Your task to perform on an android device: Open the Play Movies app and select the watchlist tab. Image 0: 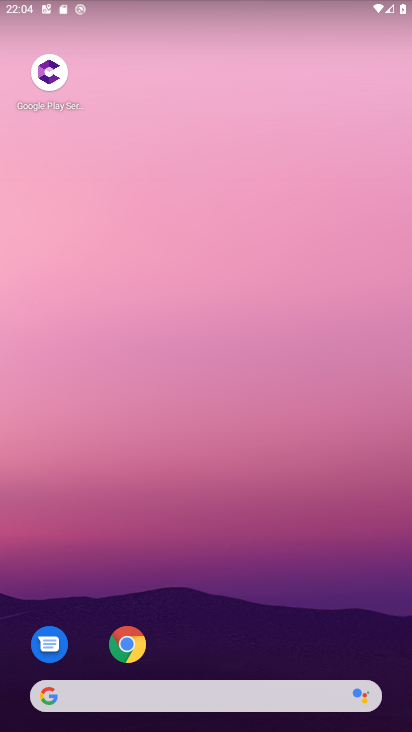
Step 0: drag from (214, 655) to (266, 34)
Your task to perform on an android device: Open the Play Movies app and select the watchlist tab. Image 1: 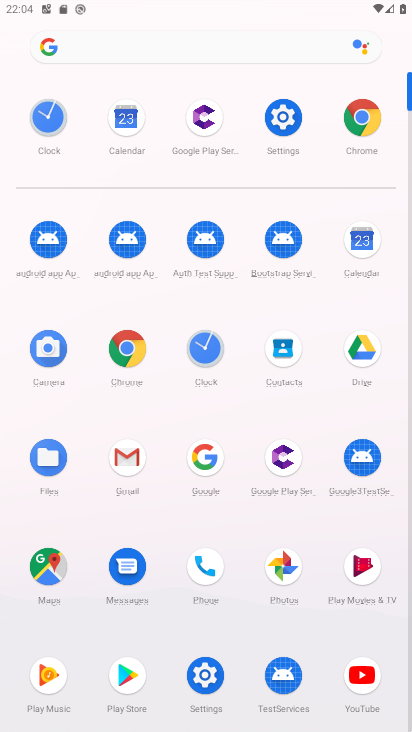
Step 1: click (357, 563)
Your task to perform on an android device: Open the Play Movies app and select the watchlist tab. Image 2: 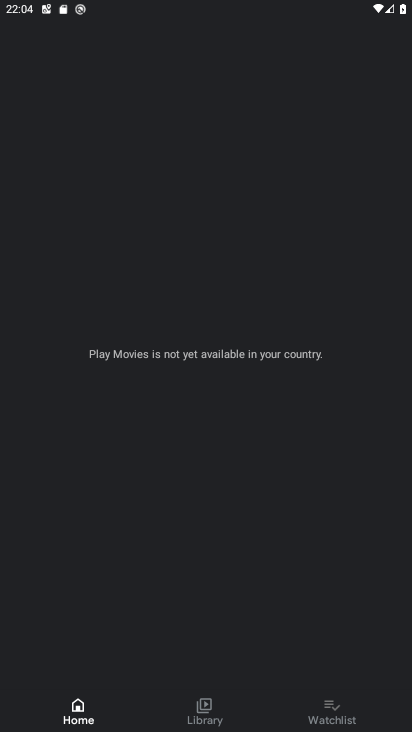
Step 2: click (337, 705)
Your task to perform on an android device: Open the Play Movies app and select the watchlist tab. Image 3: 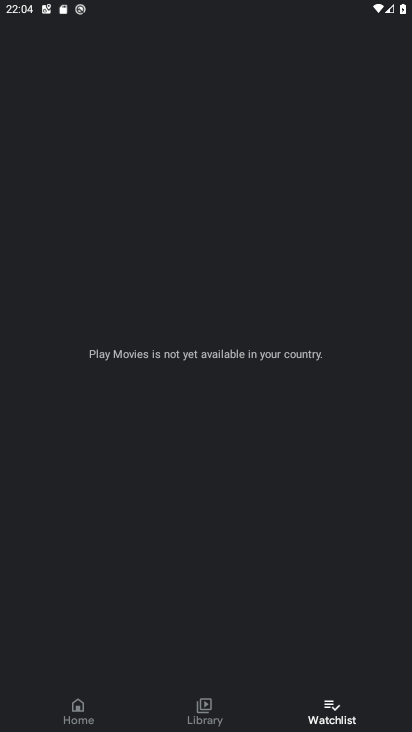
Step 3: task complete